Your task to perform on an android device: Go to wifi settings Image 0: 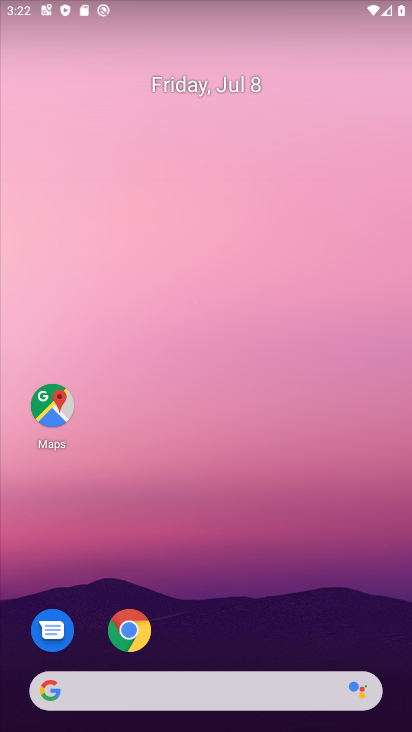
Step 0: drag from (310, 619) to (255, 189)
Your task to perform on an android device: Go to wifi settings Image 1: 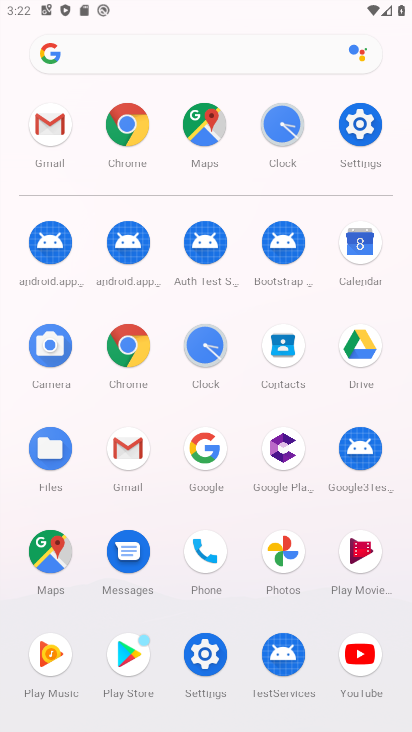
Step 1: click (372, 129)
Your task to perform on an android device: Go to wifi settings Image 2: 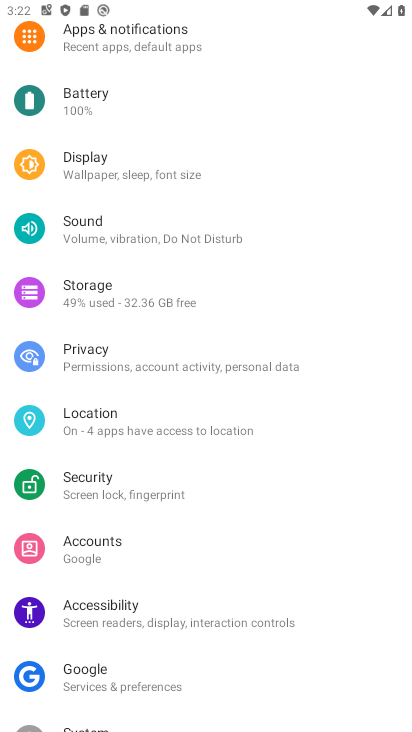
Step 2: drag from (129, 119) to (72, 318)
Your task to perform on an android device: Go to wifi settings Image 3: 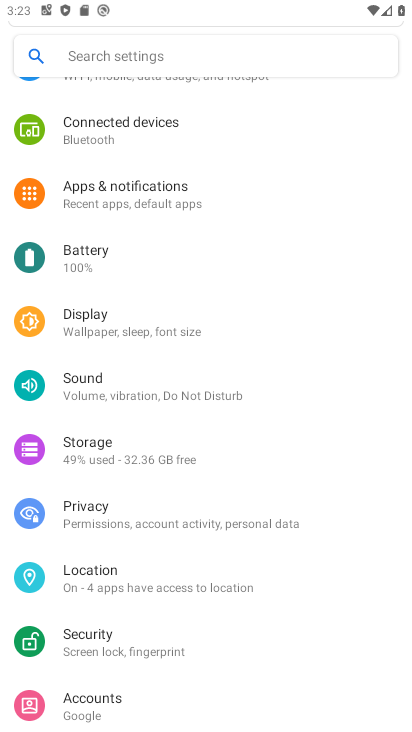
Step 3: drag from (112, 181) to (118, 400)
Your task to perform on an android device: Go to wifi settings Image 4: 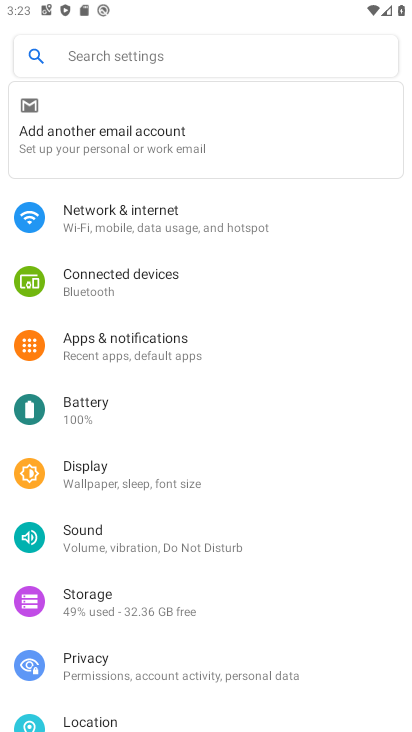
Step 4: click (169, 212)
Your task to perform on an android device: Go to wifi settings Image 5: 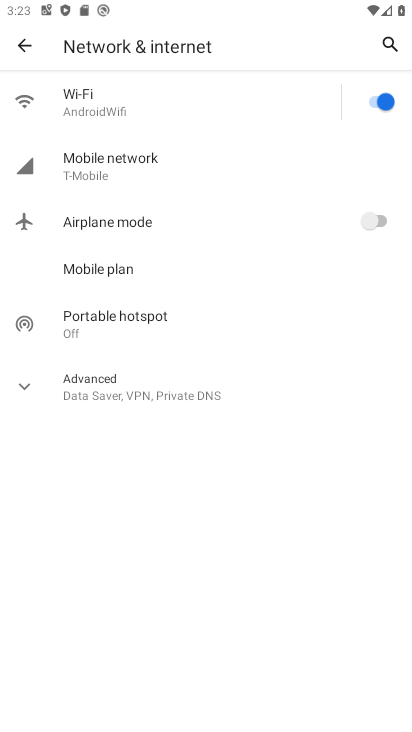
Step 5: task complete